Your task to perform on an android device: change alarm snooze length Image 0: 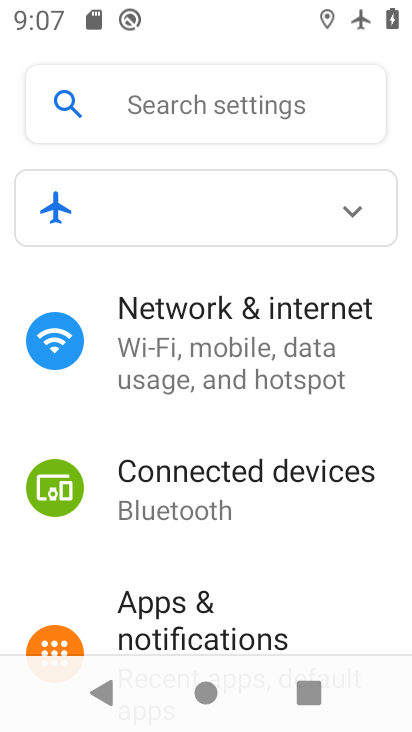
Step 0: press home button
Your task to perform on an android device: change alarm snooze length Image 1: 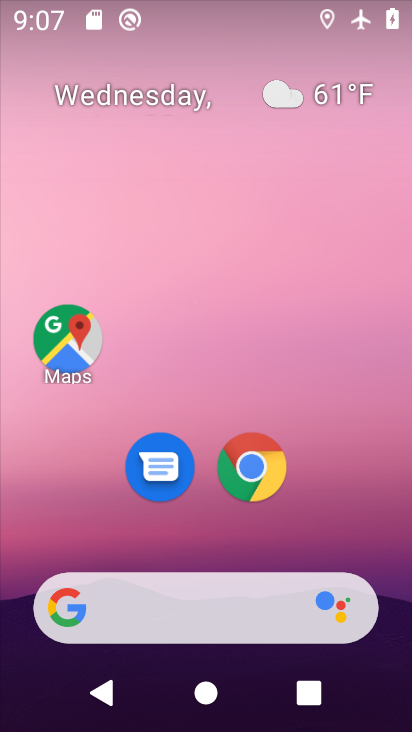
Step 1: drag from (310, 548) to (281, 74)
Your task to perform on an android device: change alarm snooze length Image 2: 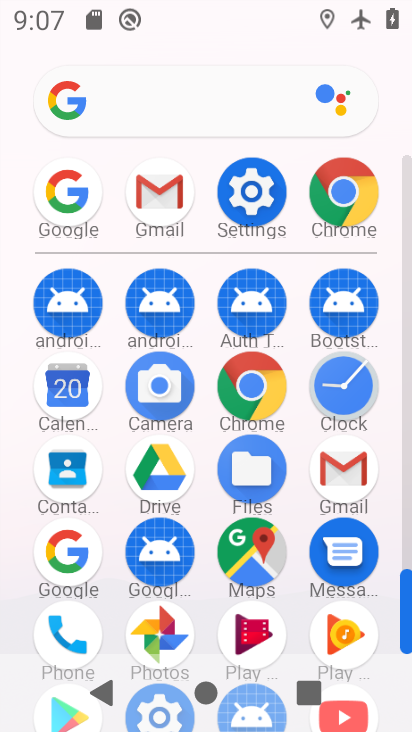
Step 2: click (345, 403)
Your task to perform on an android device: change alarm snooze length Image 3: 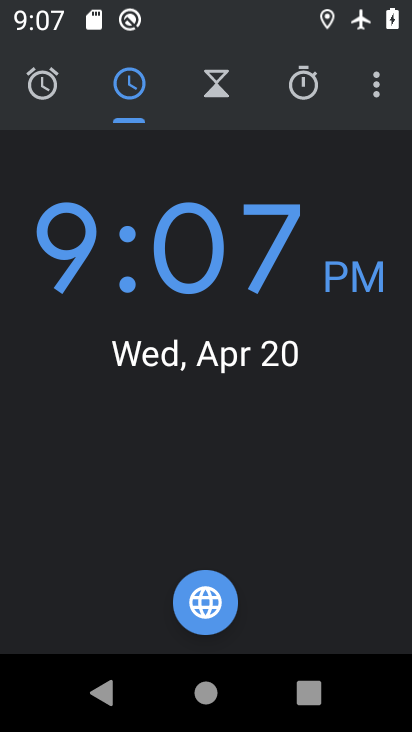
Step 3: click (373, 87)
Your task to perform on an android device: change alarm snooze length Image 4: 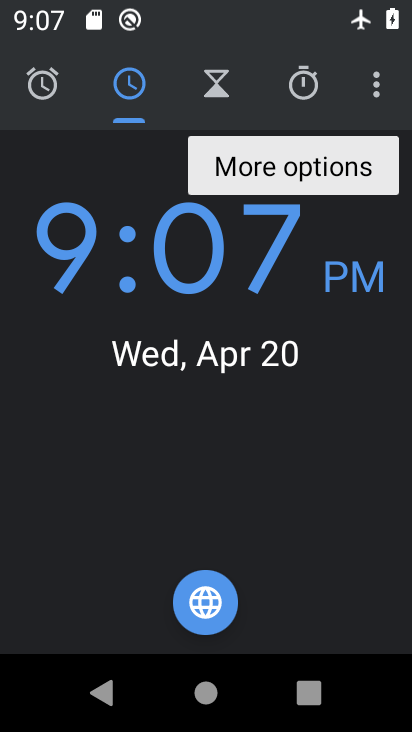
Step 4: click (373, 88)
Your task to perform on an android device: change alarm snooze length Image 5: 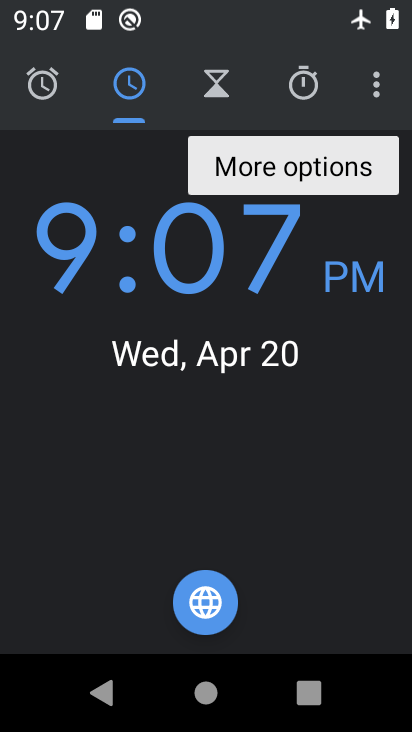
Step 5: click (374, 91)
Your task to perform on an android device: change alarm snooze length Image 6: 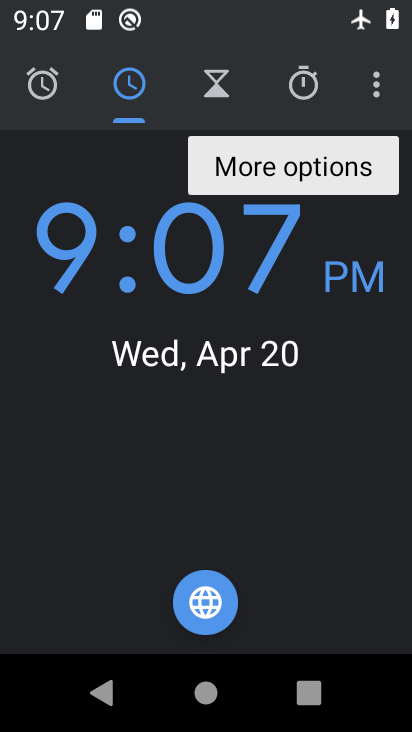
Step 6: click (374, 91)
Your task to perform on an android device: change alarm snooze length Image 7: 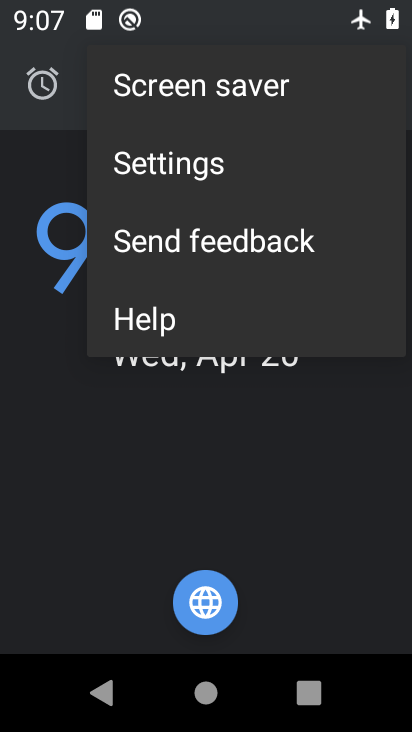
Step 7: click (197, 173)
Your task to perform on an android device: change alarm snooze length Image 8: 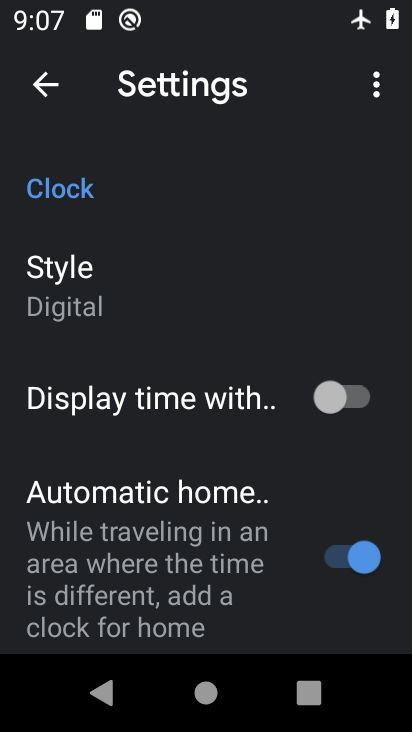
Step 8: drag from (182, 528) to (159, 267)
Your task to perform on an android device: change alarm snooze length Image 9: 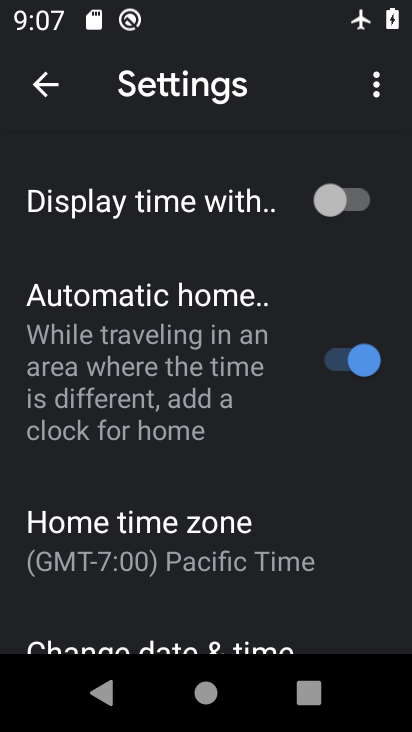
Step 9: drag from (162, 509) to (118, 249)
Your task to perform on an android device: change alarm snooze length Image 10: 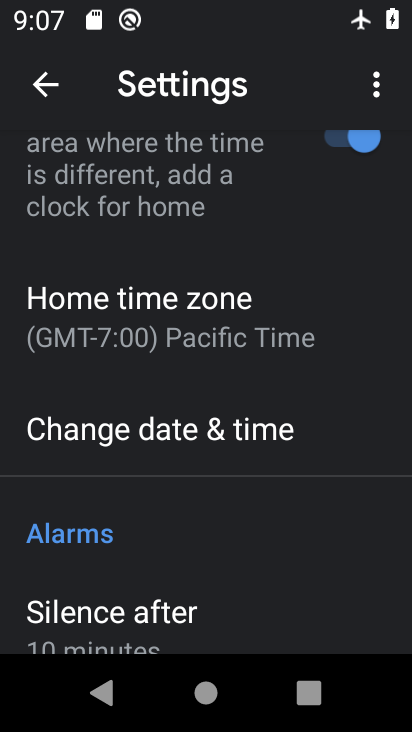
Step 10: drag from (121, 508) to (128, 277)
Your task to perform on an android device: change alarm snooze length Image 11: 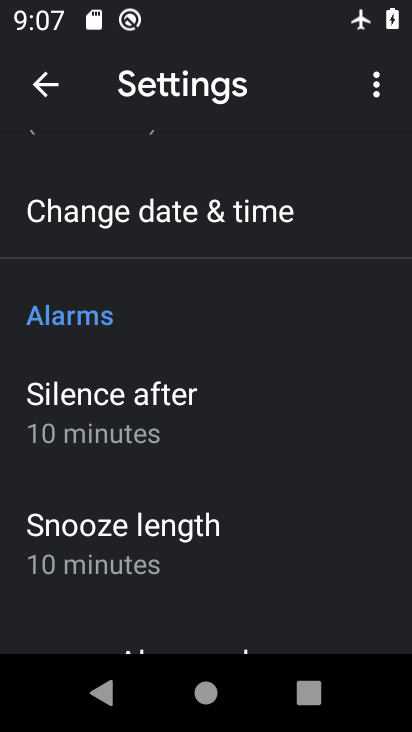
Step 11: click (149, 523)
Your task to perform on an android device: change alarm snooze length Image 12: 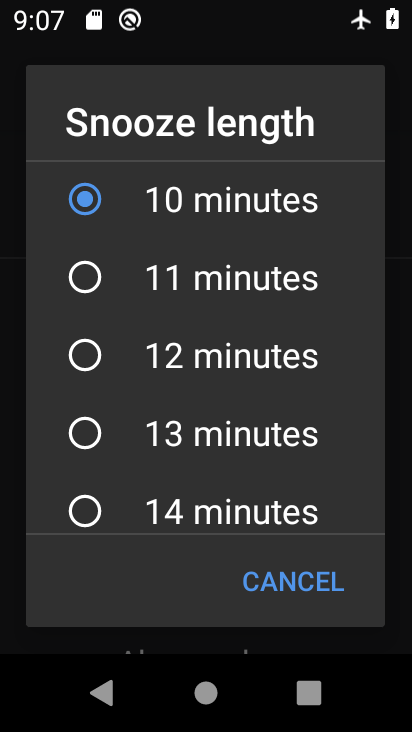
Step 12: click (81, 374)
Your task to perform on an android device: change alarm snooze length Image 13: 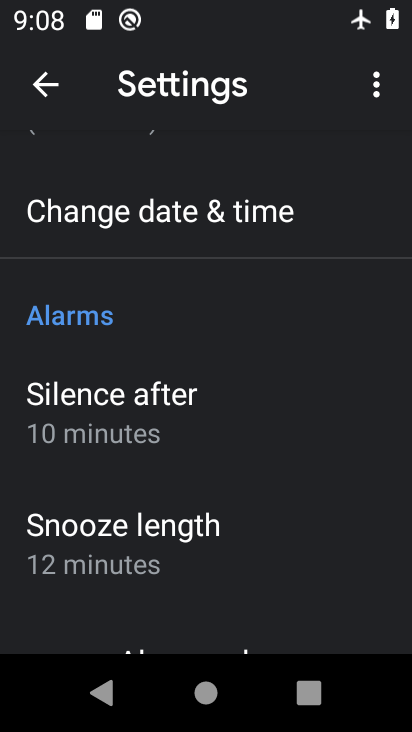
Step 13: task complete